Your task to perform on an android device: Open calendar and show me the first week of next month Image 0: 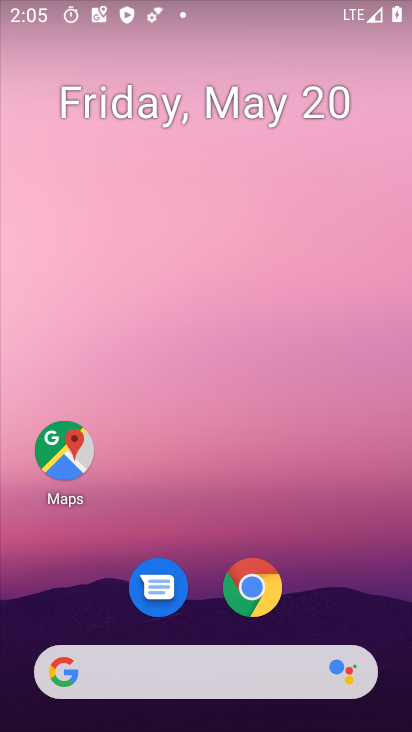
Step 0: drag from (358, 569) to (278, 167)
Your task to perform on an android device: Open calendar and show me the first week of next month Image 1: 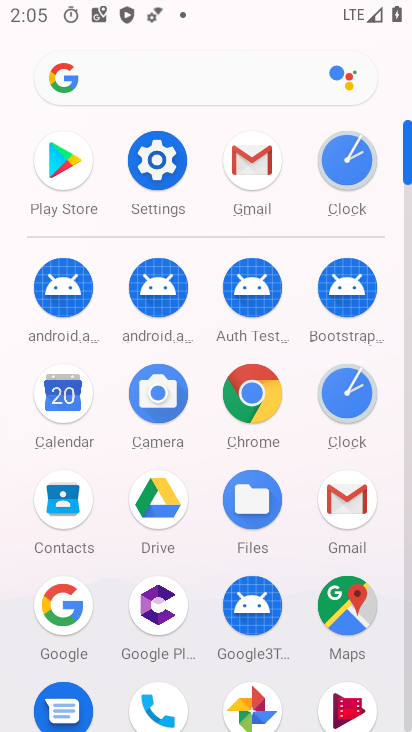
Step 1: click (56, 412)
Your task to perform on an android device: Open calendar and show me the first week of next month Image 2: 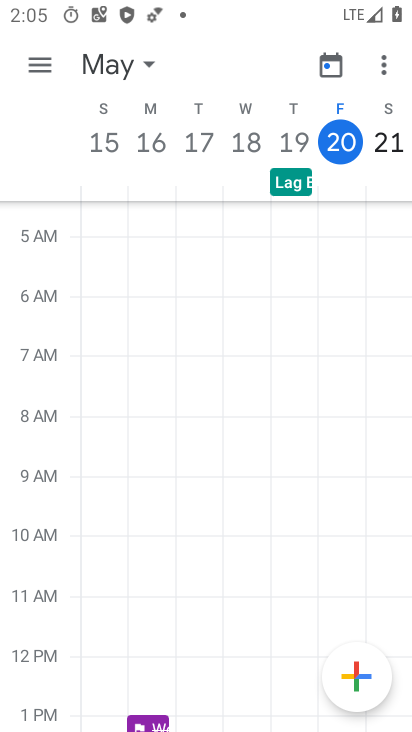
Step 2: click (75, 64)
Your task to perform on an android device: Open calendar and show me the first week of next month Image 3: 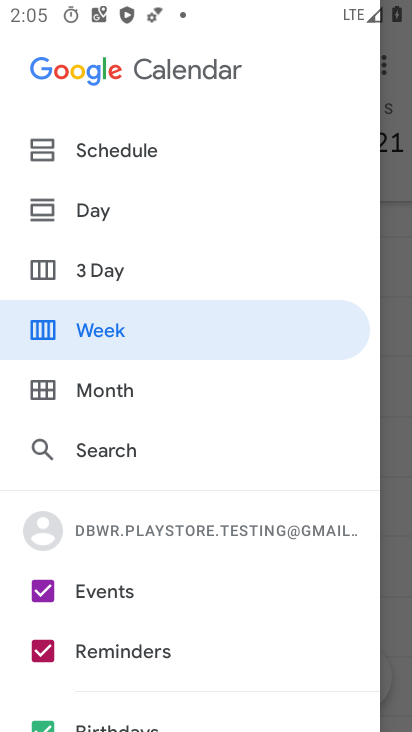
Step 3: click (395, 278)
Your task to perform on an android device: Open calendar and show me the first week of next month Image 4: 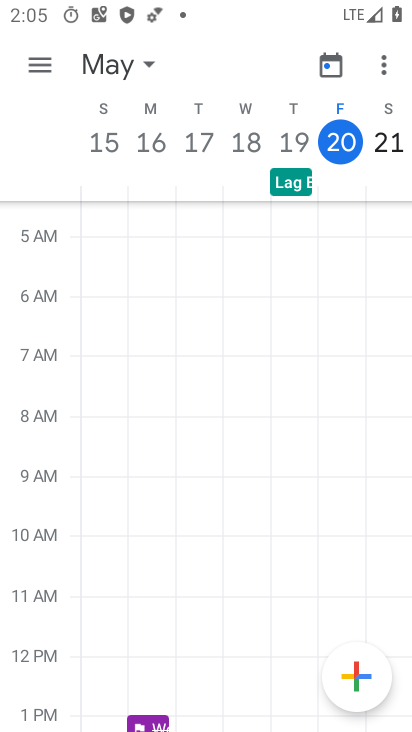
Step 4: drag from (351, 148) to (74, 130)
Your task to perform on an android device: Open calendar and show me the first week of next month Image 5: 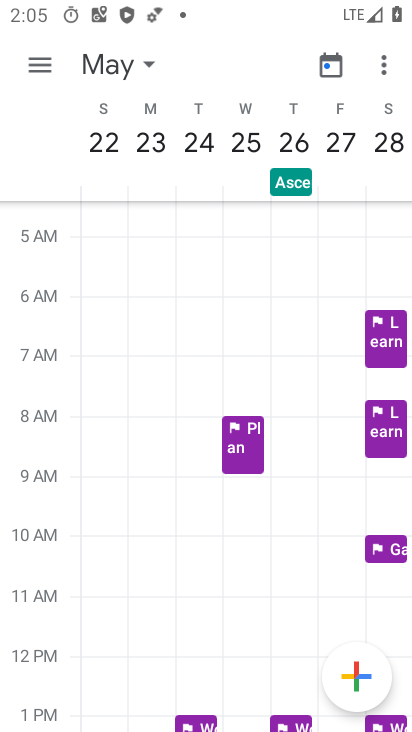
Step 5: click (113, 56)
Your task to perform on an android device: Open calendar and show me the first week of next month Image 6: 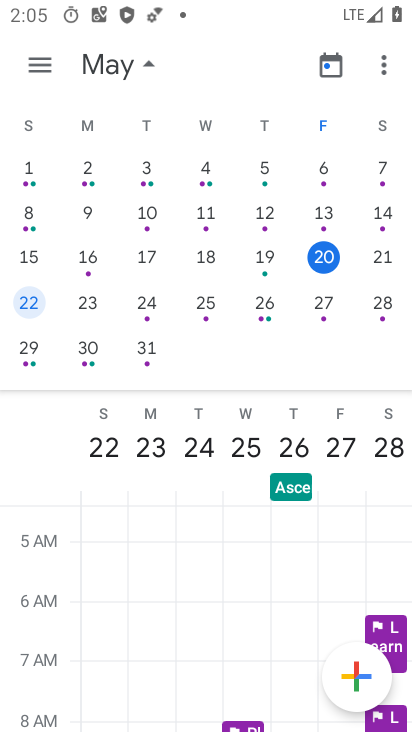
Step 6: drag from (377, 285) to (60, 262)
Your task to perform on an android device: Open calendar and show me the first week of next month Image 7: 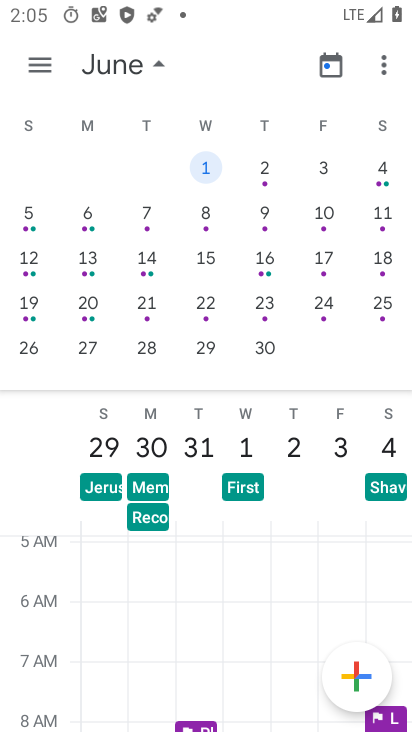
Step 7: click (28, 208)
Your task to perform on an android device: Open calendar and show me the first week of next month Image 8: 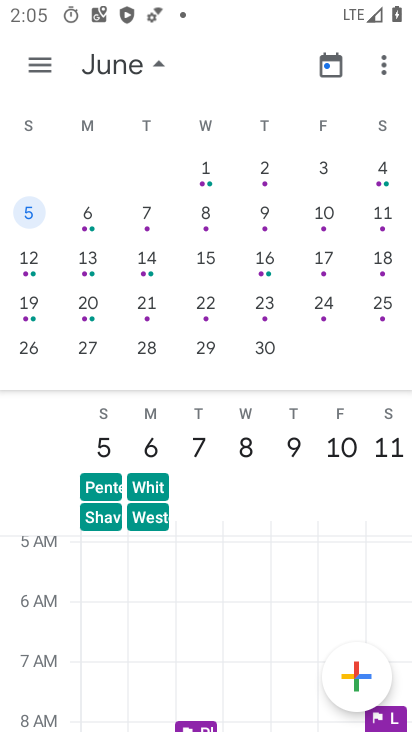
Step 8: task complete